Your task to perform on an android device: What's the weather going to be this weekend? Image 0: 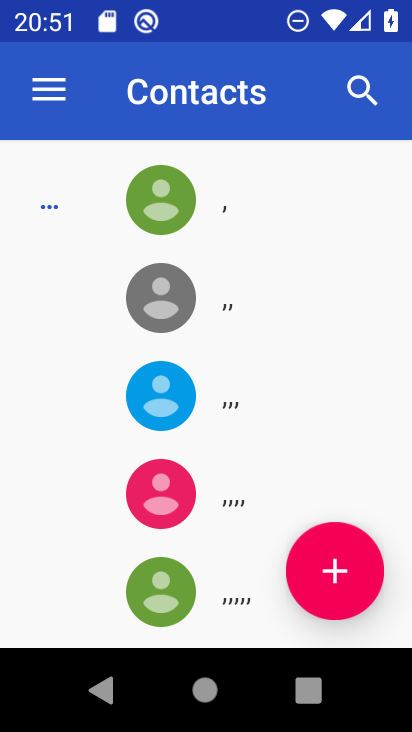
Step 0: press home button
Your task to perform on an android device: What's the weather going to be this weekend? Image 1: 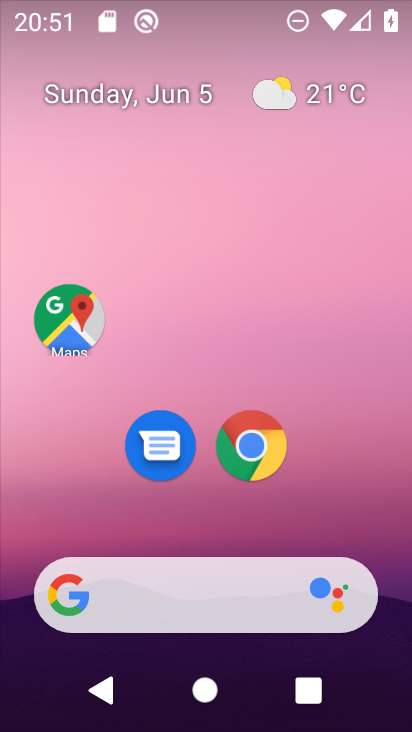
Step 1: click (138, 590)
Your task to perform on an android device: What's the weather going to be this weekend? Image 2: 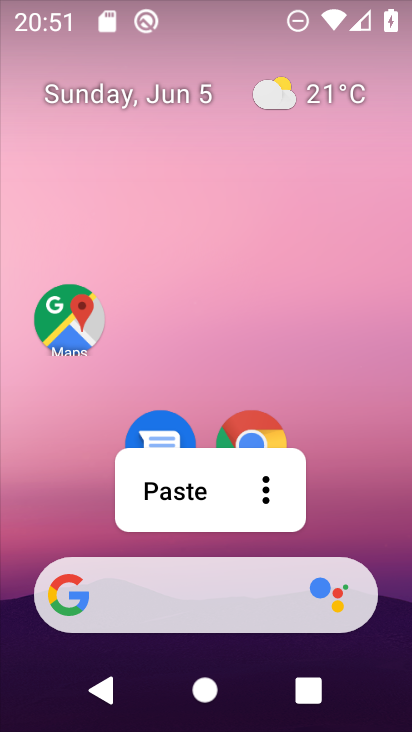
Step 2: click (186, 582)
Your task to perform on an android device: What's the weather going to be this weekend? Image 3: 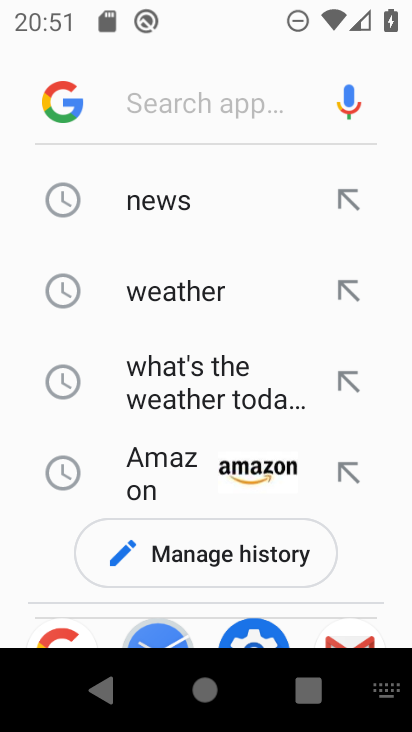
Step 3: type "What's the weather going to be this weekend?"
Your task to perform on an android device: What's the weather going to be this weekend? Image 4: 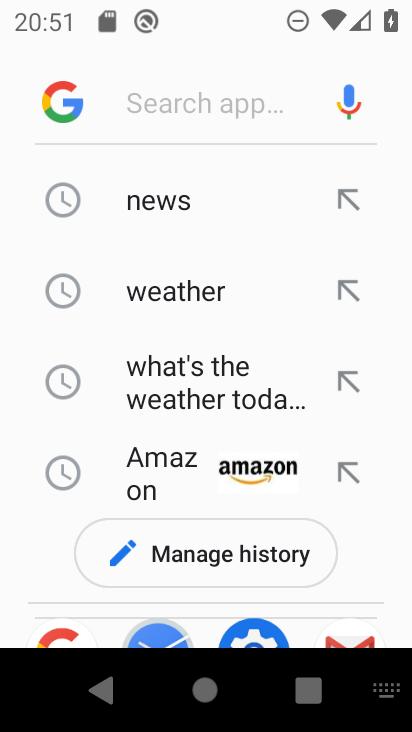
Step 4: click (152, 95)
Your task to perform on an android device: What's the weather going to be this weekend? Image 5: 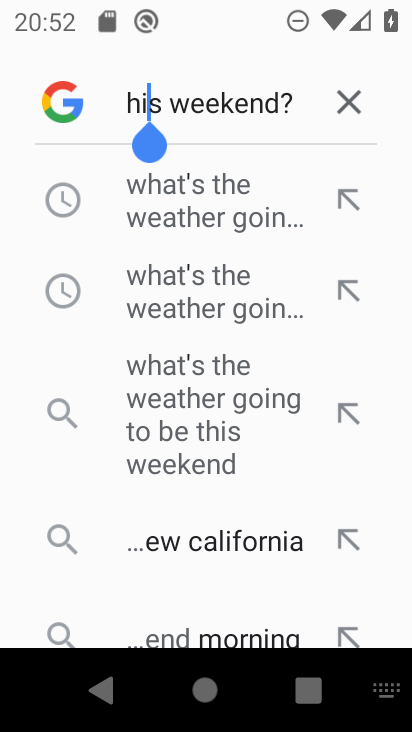
Step 5: click (202, 191)
Your task to perform on an android device: What's the weather going to be this weekend? Image 6: 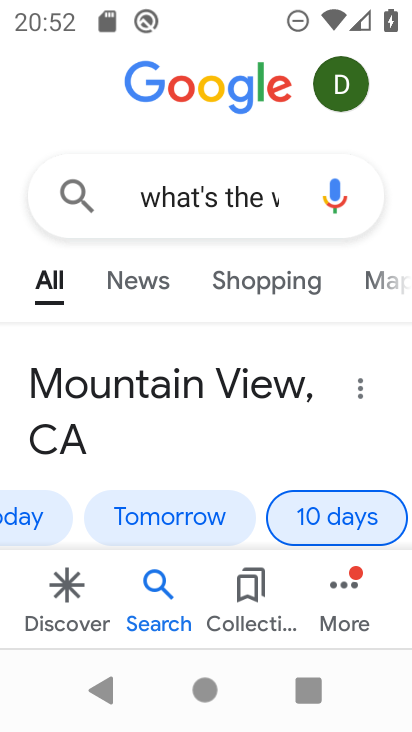
Step 6: task complete